Your task to perform on an android device: turn off location Image 0: 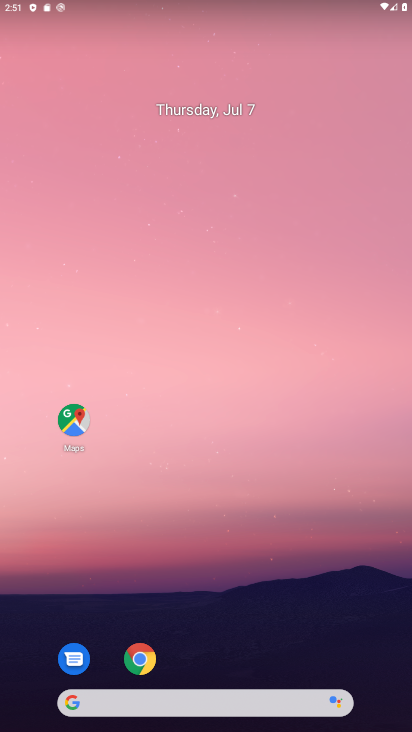
Step 0: drag from (239, 685) to (323, 5)
Your task to perform on an android device: turn off location Image 1: 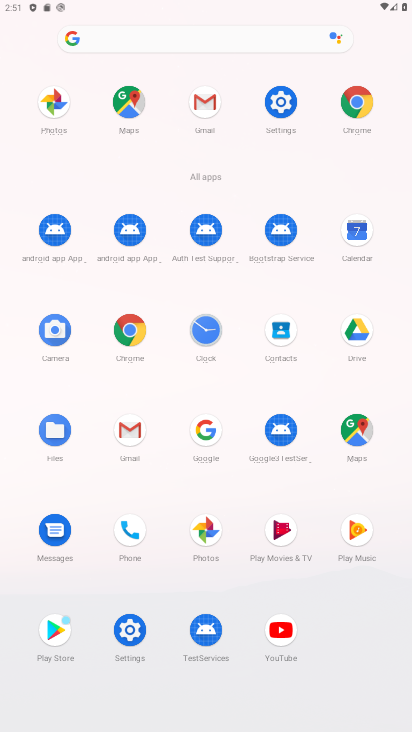
Step 1: click (117, 628)
Your task to perform on an android device: turn off location Image 2: 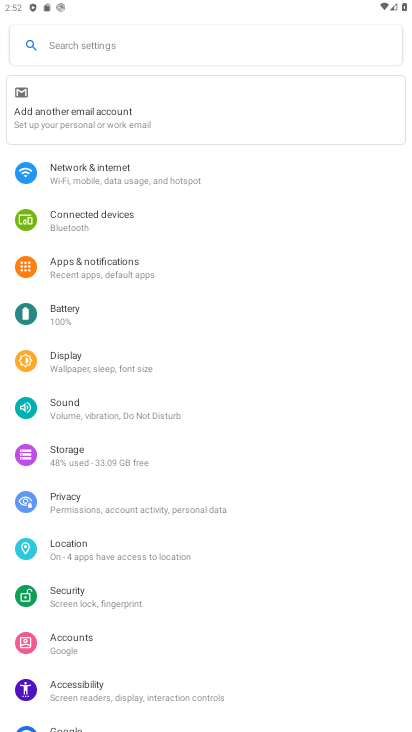
Step 2: click (78, 540)
Your task to perform on an android device: turn off location Image 3: 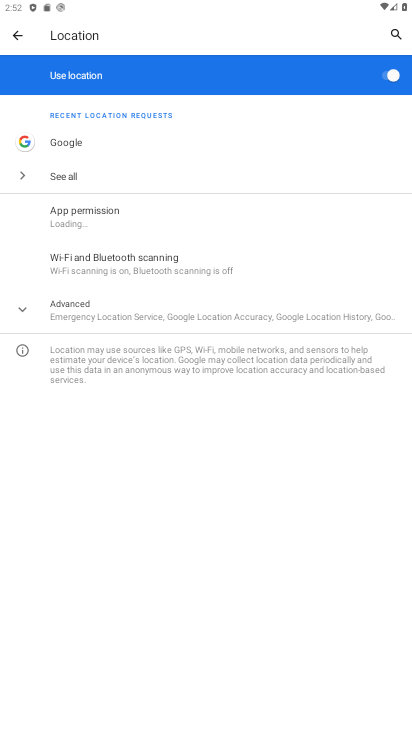
Step 3: click (388, 73)
Your task to perform on an android device: turn off location Image 4: 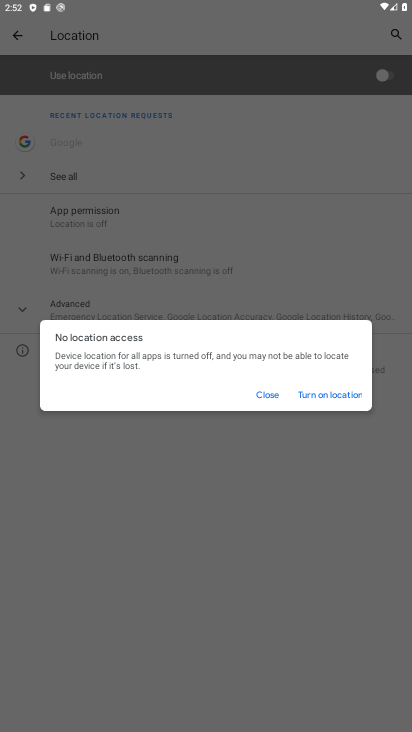
Step 4: click (260, 397)
Your task to perform on an android device: turn off location Image 5: 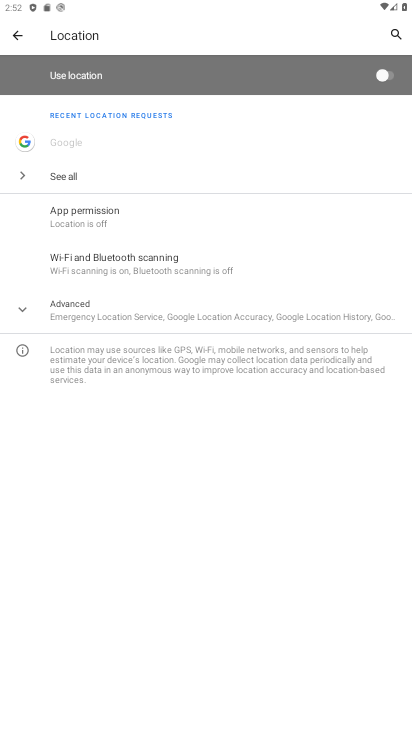
Step 5: task complete